Your task to perform on an android device: Search for "acer nitro" on target, select the first entry, and add it to the cart. Image 0: 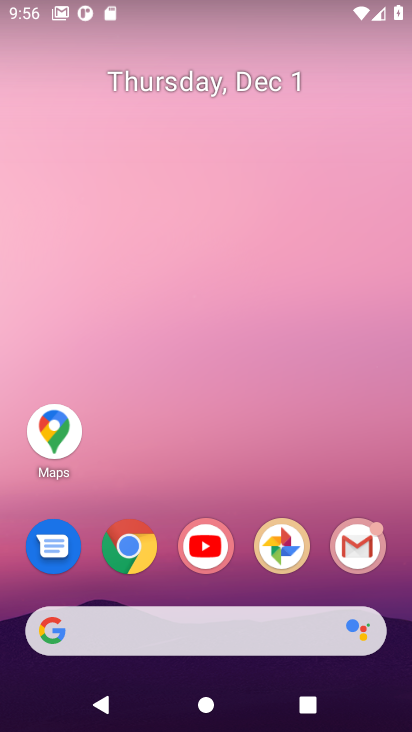
Step 0: click (130, 546)
Your task to perform on an android device: Search for "acer nitro" on target, select the first entry, and add it to the cart. Image 1: 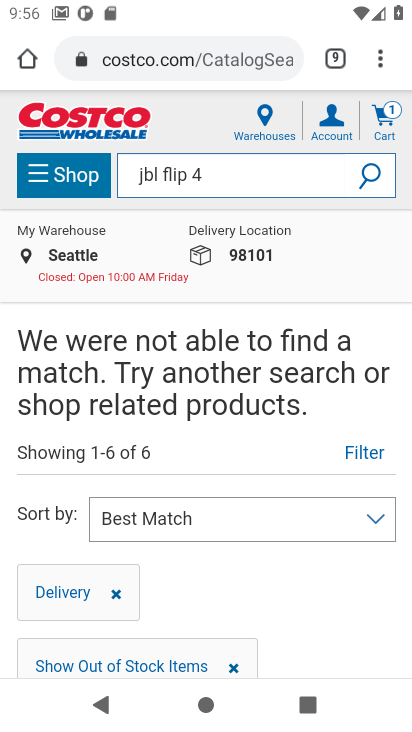
Step 1: click (193, 58)
Your task to perform on an android device: Search for "acer nitro" on target, select the first entry, and add it to the cart. Image 2: 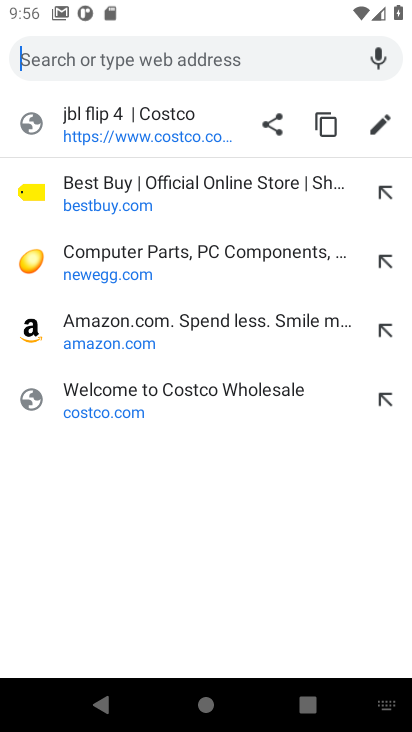
Step 2: type "target.com"
Your task to perform on an android device: Search for "acer nitro" on target, select the first entry, and add it to the cart. Image 3: 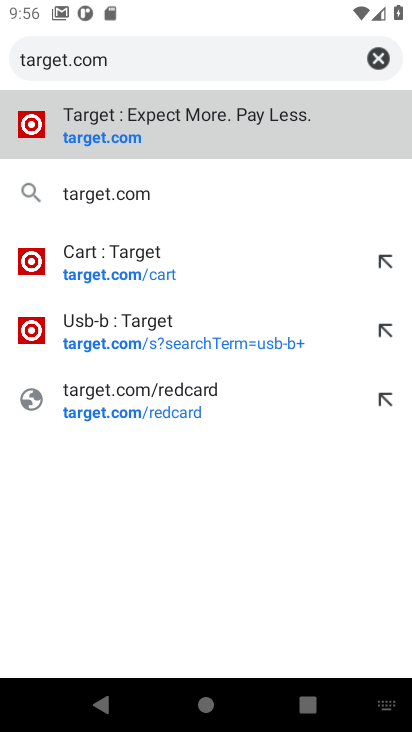
Step 3: click (85, 134)
Your task to perform on an android device: Search for "acer nitro" on target, select the first entry, and add it to the cart. Image 4: 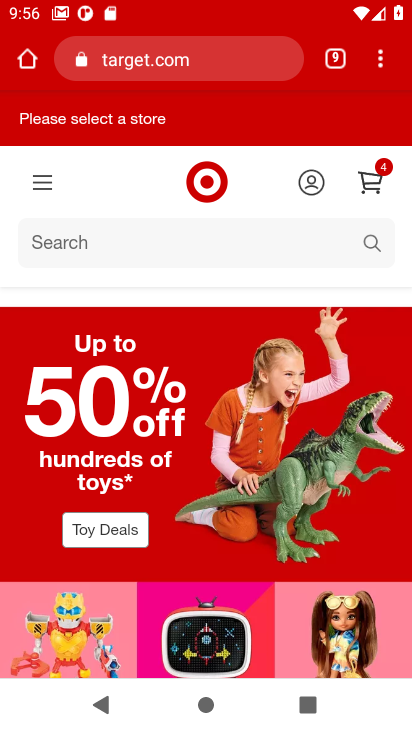
Step 4: click (28, 245)
Your task to perform on an android device: Search for "acer nitro" on target, select the first entry, and add it to the cart. Image 5: 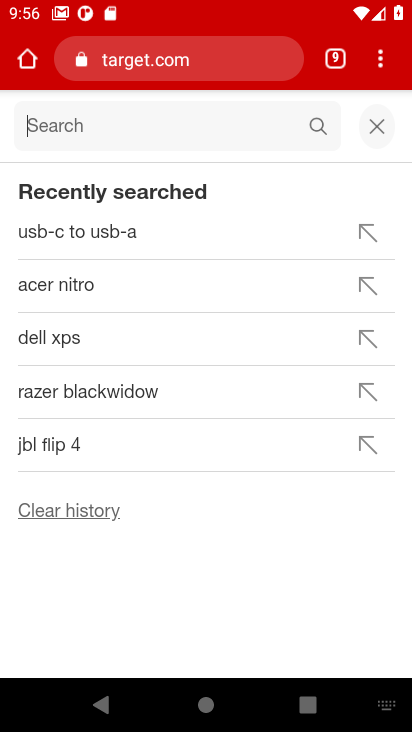
Step 5: type "acer nitro"
Your task to perform on an android device: Search for "acer nitro" on target, select the first entry, and add it to the cart. Image 6: 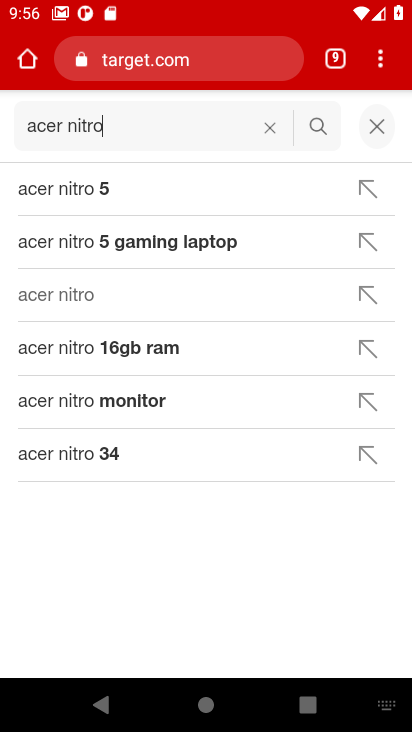
Step 6: click (65, 295)
Your task to perform on an android device: Search for "acer nitro" on target, select the first entry, and add it to the cart. Image 7: 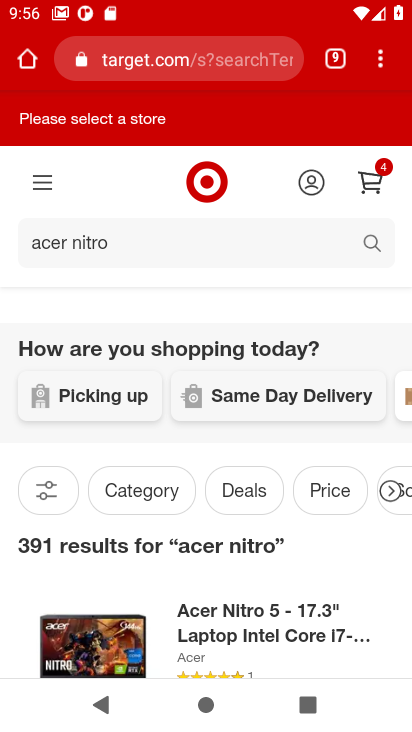
Step 7: drag from (210, 419) to (210, 223)
Your task to perform on an android device: Search for "acer nitro" on target, select the first entry, and add it to the cart. Image 8: 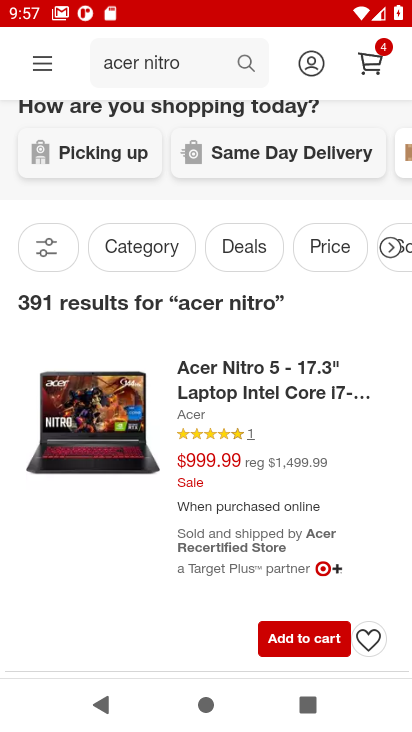
Step 8: click (296, 643)
Your task to perform on an android device: Search for "acer nitro" on target, select the first entry, and add it to the cart. Image 9: 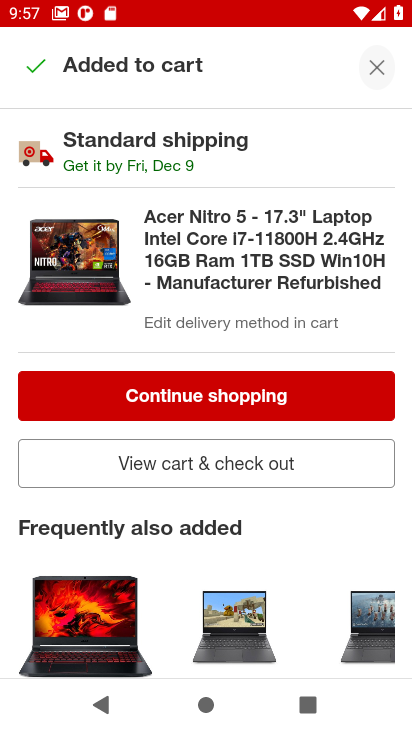
Step 9: task complete